Your task to perform on an android device: Go to Maps Image 0: 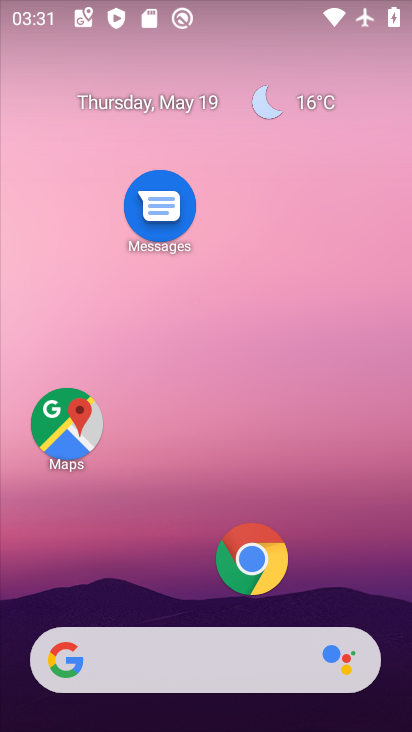
Step 0: click (40, 444)
Your task to perform on an android device: Go to Maps Image 1: 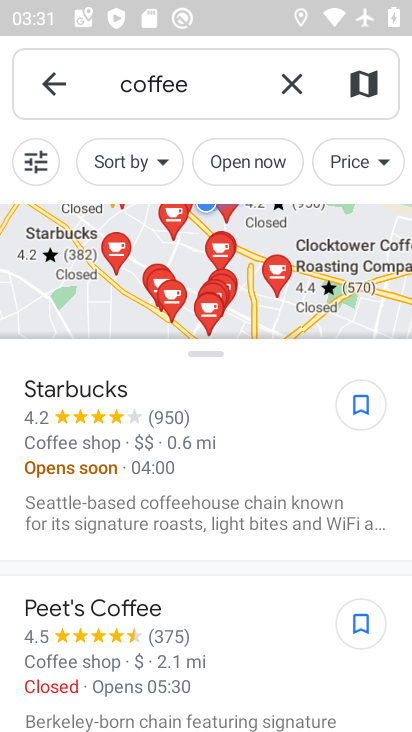
Step 1: task complete